Your task to perform on an android device: Open network settings Image 0: 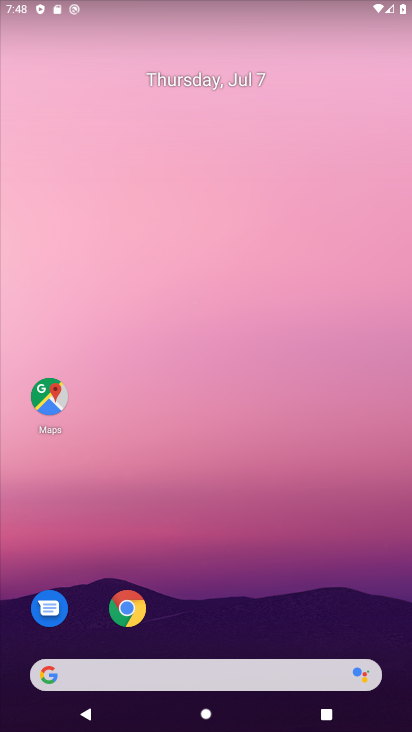
Step 0: drag from (210, 615) to (209, 187)
Your task to perform on an android device: Open network settings Image 1: 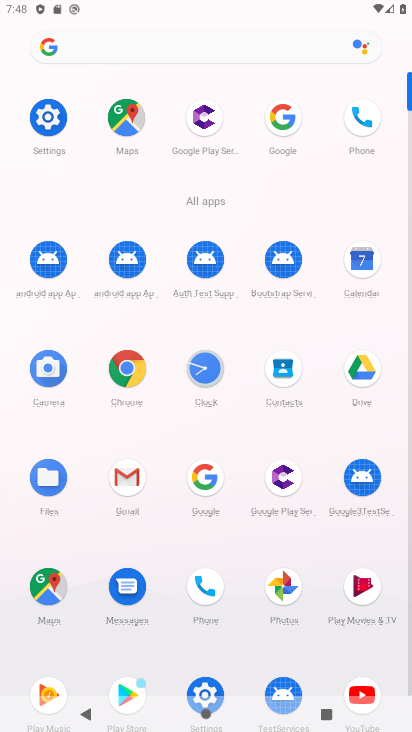
Step 1: click (38, 116)
Your task to perform on an android device: Open network settings Image 2: 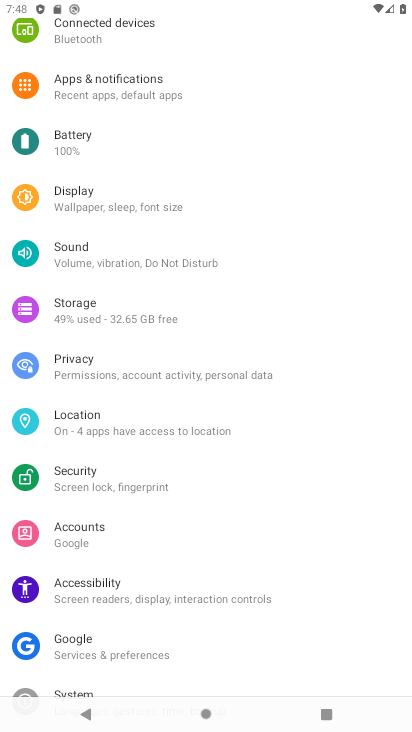
Step 2: drag from (164, 136) to (202, 519)
Your task to perform on an android device: Open network settings Image 3: 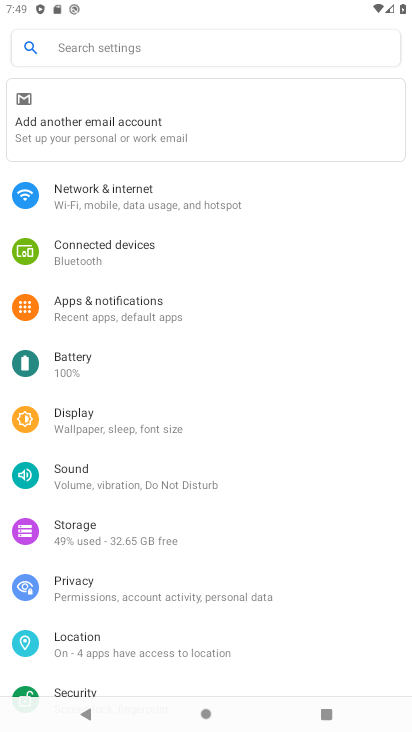
Step 3: click (159, 187)
Your task to perform on an android device: Open network settings Image 4: 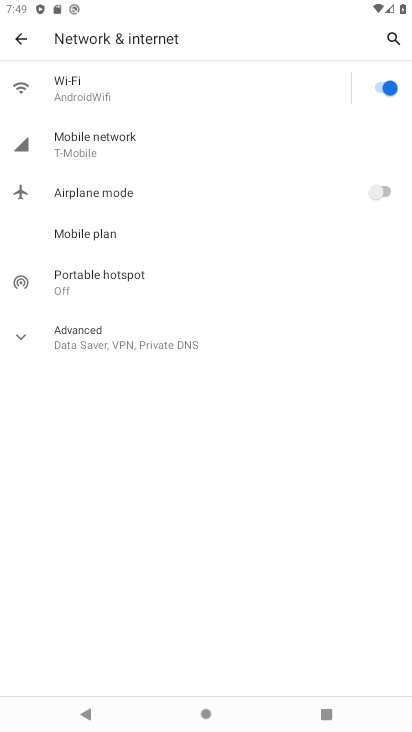
Step 4: click (150, 136)
Your task to perform on an android device: Open network settings Image 5: 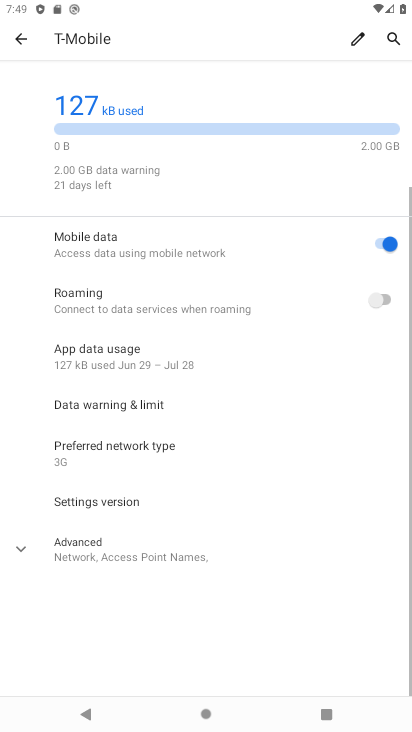
Step 5: task complete